Your task to perform on an android device: Open Reddit.com Image 0: 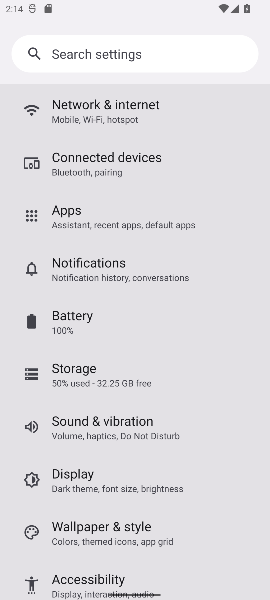
Step 0: press home button
Your task to perform on an android device: Open Reddit.com Image 1: 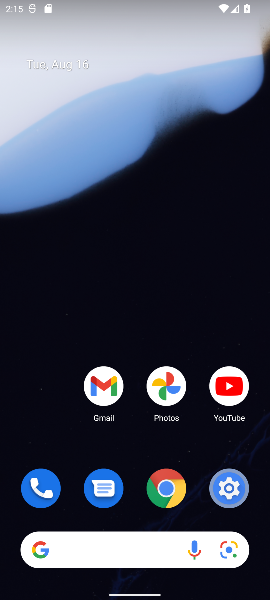
Step 1: click (154, 546)
Your task to perform on an android device: Open Reddit.com Image 2: 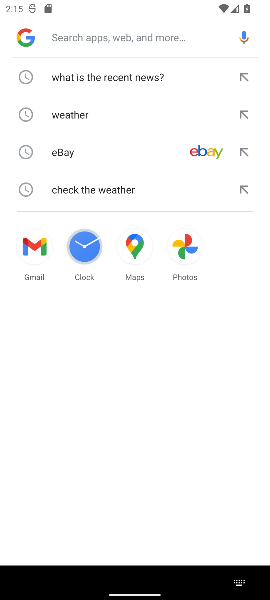
Step 2: type " Reddit.com"
Your task to perform on an android device: Open Reddit.com Image 3: 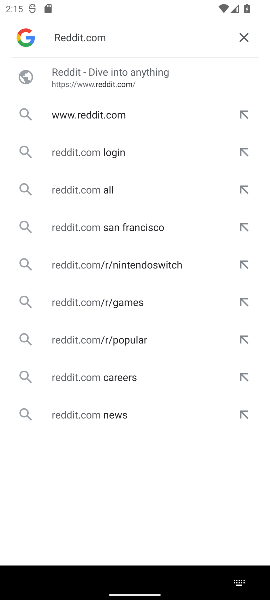
Step 3: press enter
Your task to perform on an android device: Open Reddit.com Image 4: 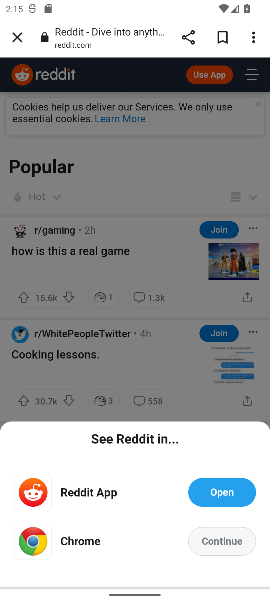
Step 4: task complete